Your task to perform on an android device: turn off airplane mode Image 0: 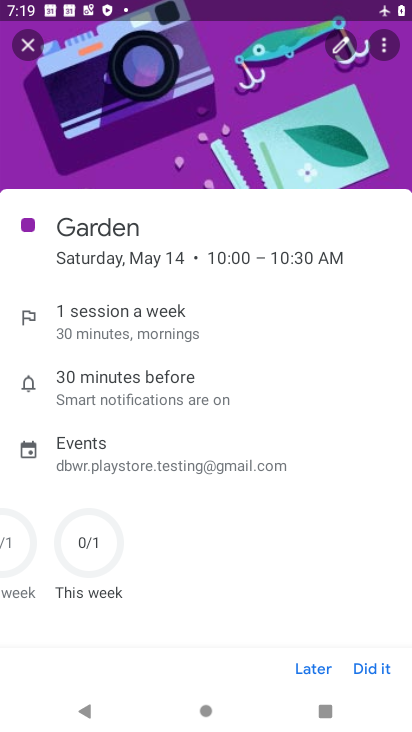
Step 0: press home button
Your task to perform on an android device: turn off airplane mode Image 1: 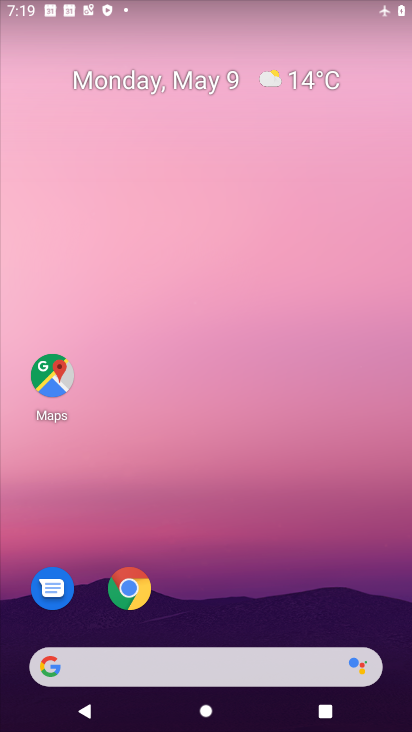
Step 1: drag from (240, 3) to (256, 497)
Your task to perform on an android device: turn off airplane mode Image 2: 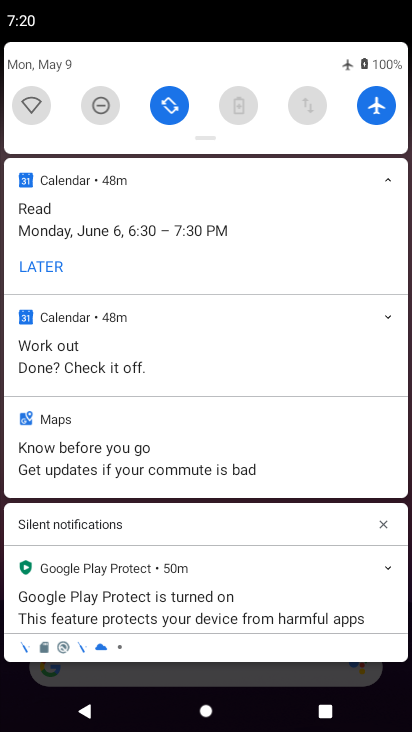
Step 2: click (378, 109)
Your task to perform on an android device: turn off airplane mode Image 3: 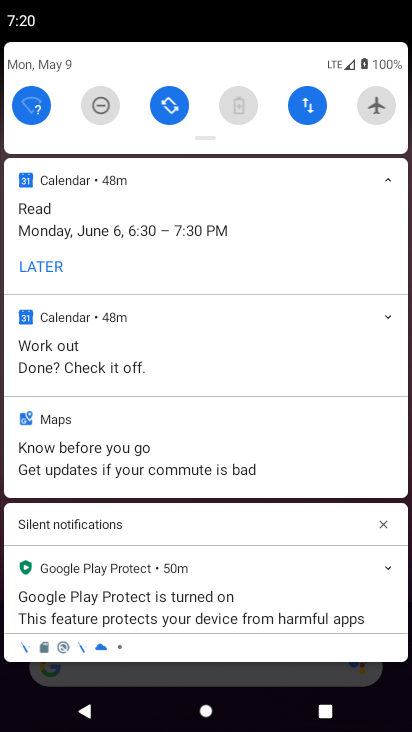
Step 3: task complete